Your task to perform on an android device: Open Google Chrome Image 0: 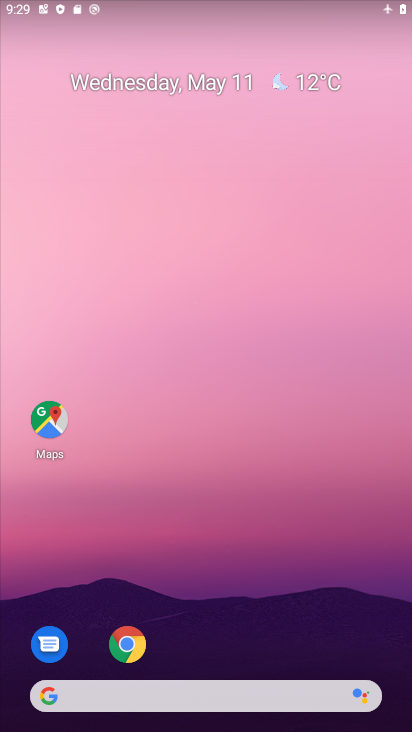
Step 0: click (134, 648)
Your task to perform on an android device: Open Google Chrome Image 1: 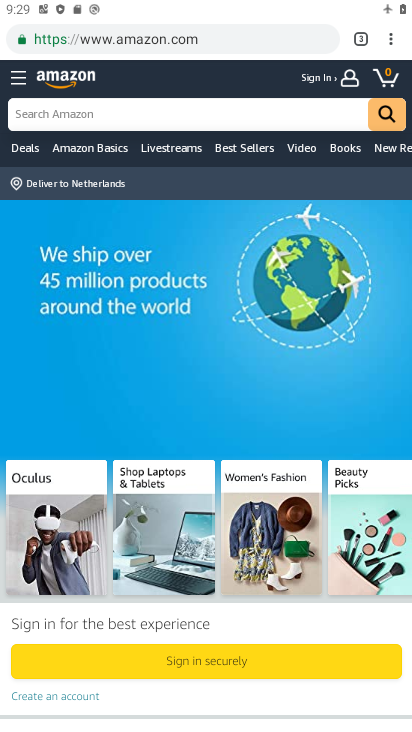
Step 1: task complete